Your task to perform on an android device: Open the web browser Image 0: 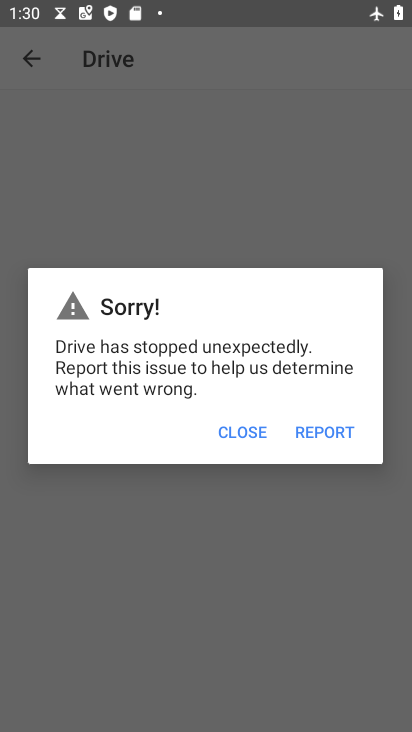
Step 0: press home button
Your task to perform on an android device: Open the web browser Image 1: 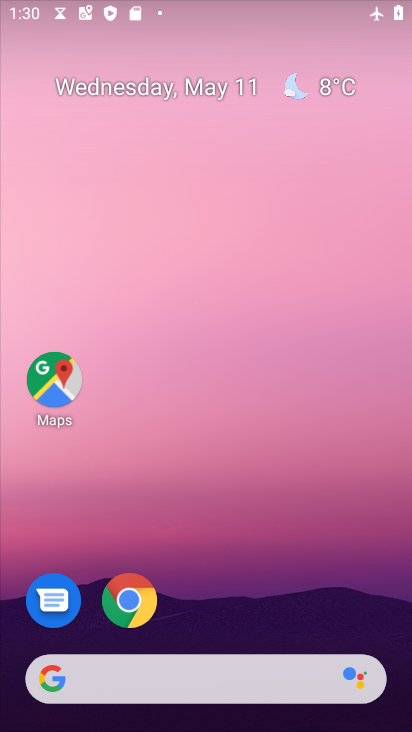
Step 1: click (129, 609)
Your task to perform on an android device: Open the web browser Image 2: 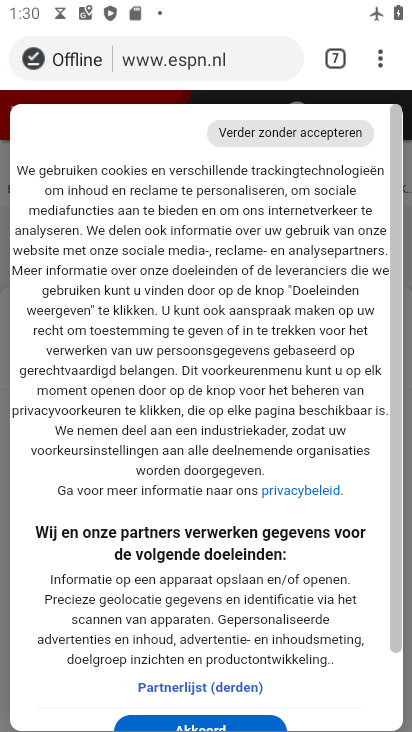
Step 2: task complete